Your task to perform on an android device: Open ESPN.com Image 0: 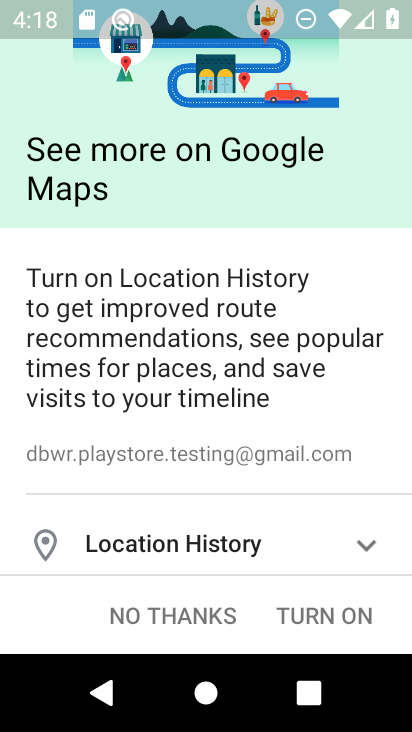
Step 0: press home button
Your task to perform on an android device: Open ESPN.com Image 1: 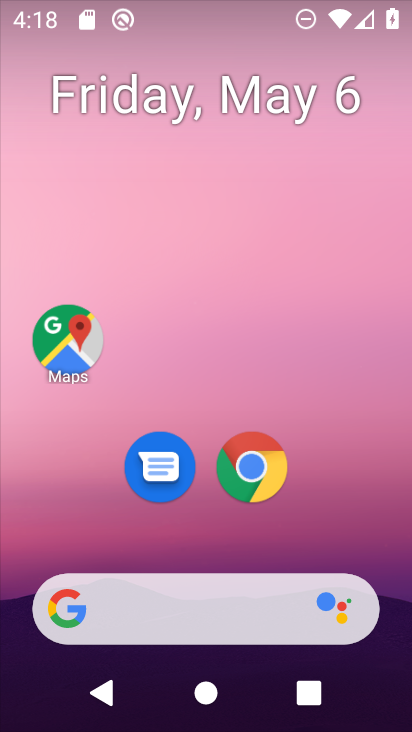
Step 1: drag from (332, 552) to (313, 41)
Your task to perform on an android device: Open ESPN.com Image 2: 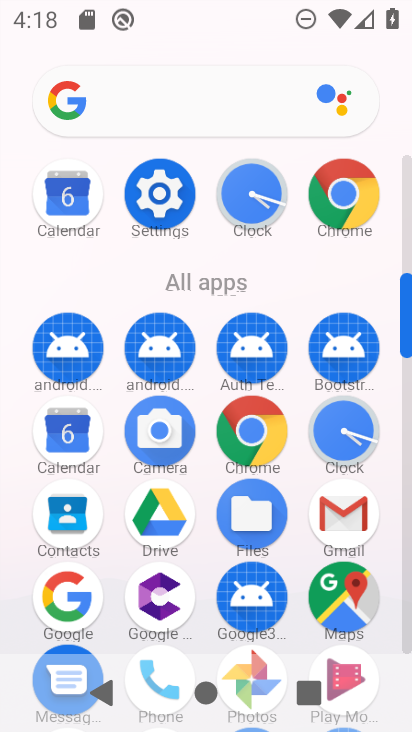
Step 2: click (342, 210)
Your task to perform on an android device: Open ESPN.com Image 3: 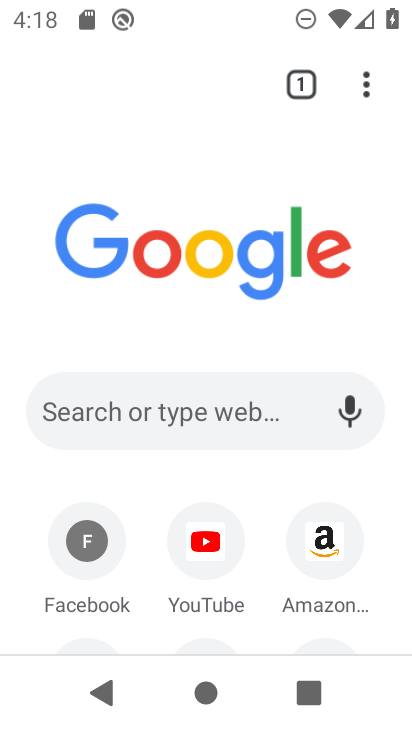
Step 3: drag from (243, 489) to (219, 189)
Your task to perform on an android device: Open ESPN.com Image 4: 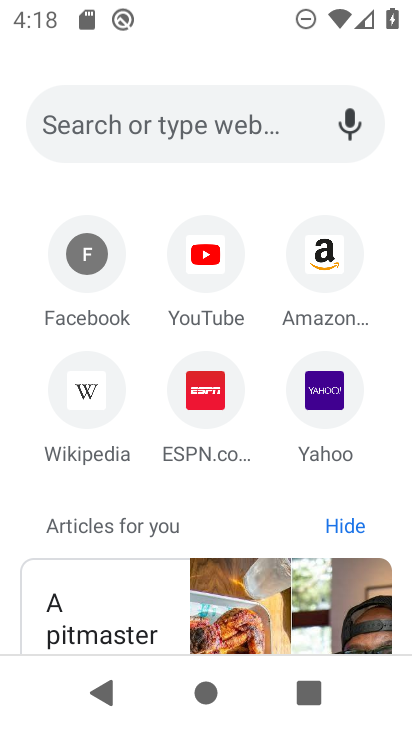
Step 4: click (194, 425)
Your task to perform on an android device: Open ESPN.com Image 5: 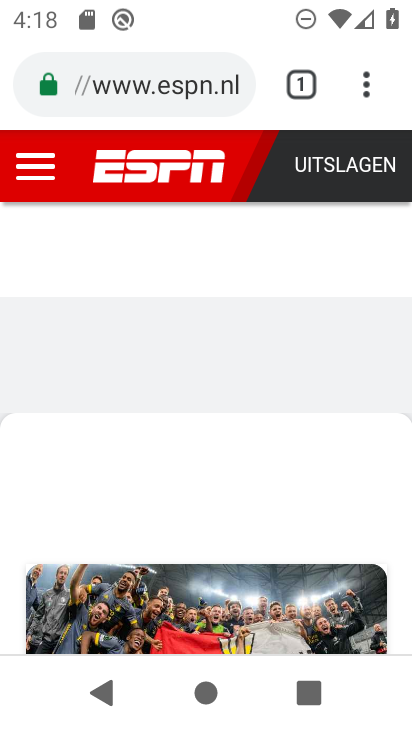
Step 5: task complete